Your task to perform on an android device: Go to location settings Image 0: 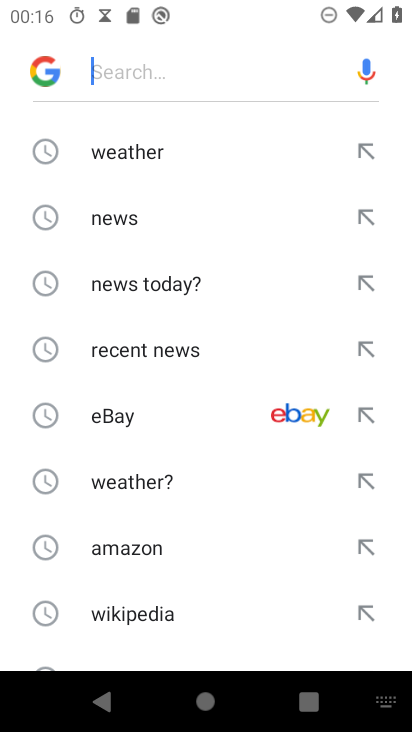
Step 0: press home button
Your task to perform on an android device: Go to location settings Image 1: 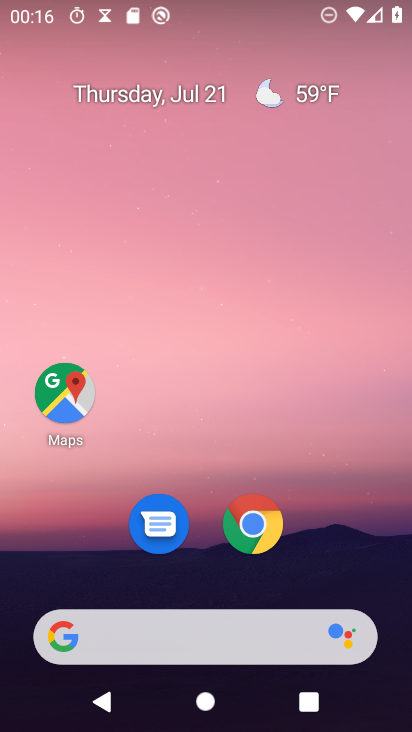
Step 1: drag from (190, 610) to (232, 61)
Your task to perform on an android device: Go to location settings Image 2: 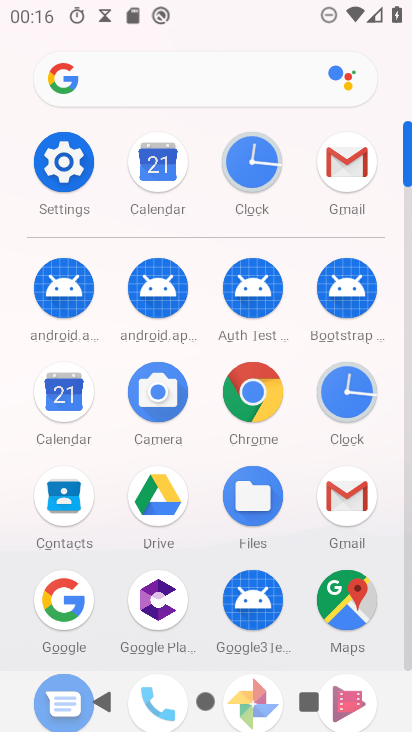
Step 2: click (86, 161)
Your task to perform on an android device: Go to location settings Image 3: 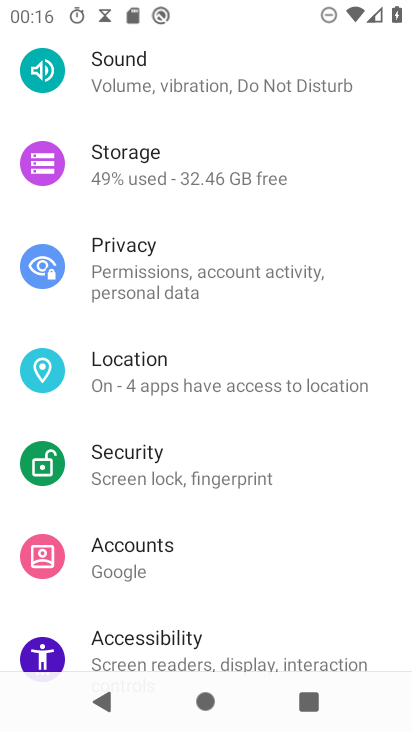
Step 3: click (160, 365)
Your task to perform on an android device: Go to location settings Image 4: 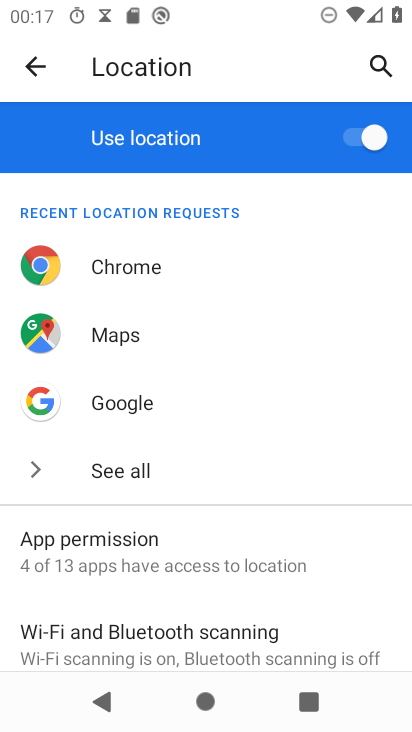
Step 4: task complete